Your task to perform on an android device: Open Chrome and go to settings Image 0: 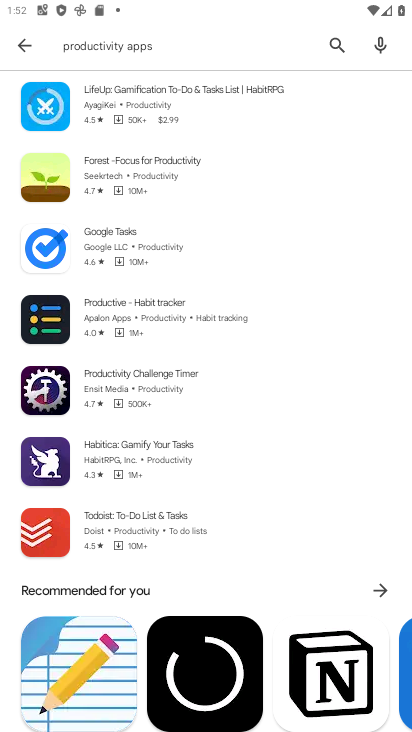
Step 0: press home button
Your task to perform on an android device: Open Chrome and go to settings Image 1: 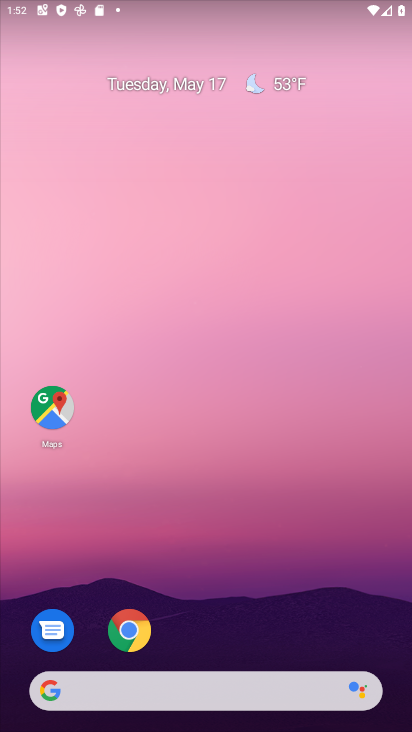
Step 1: click (141, 624)
Your task to perform on an android device: Open Chrome and go to settings Image 2: 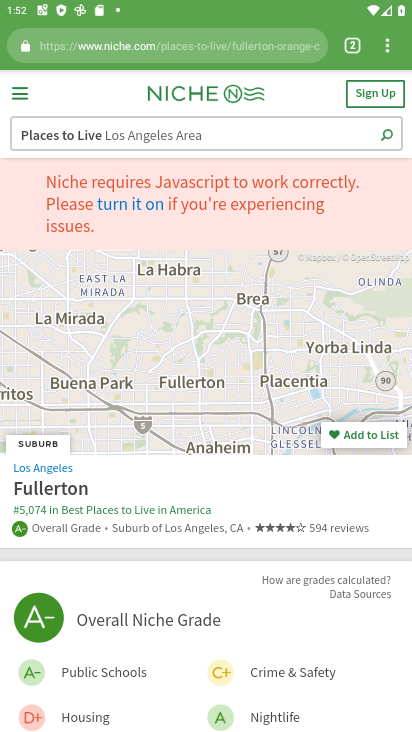
Step 2: click (397, 45)
Your task to perform on an android device: Open Chrome and go to settings Image 3: 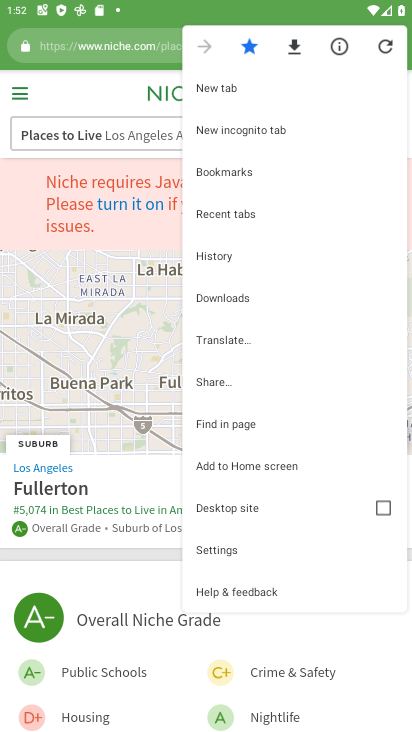
Step 3: click (222, 553)
Your task to perform on an android device: Open Chrome and go to settings Image 4: 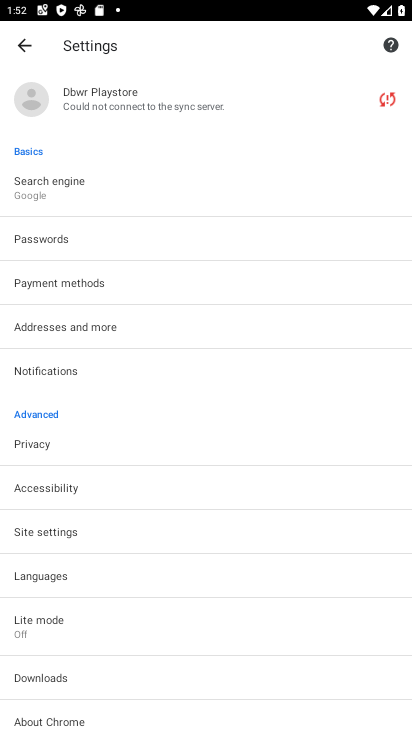
Step 4: task complete